Your task to perform on an android device: turn on wifi Image 0: 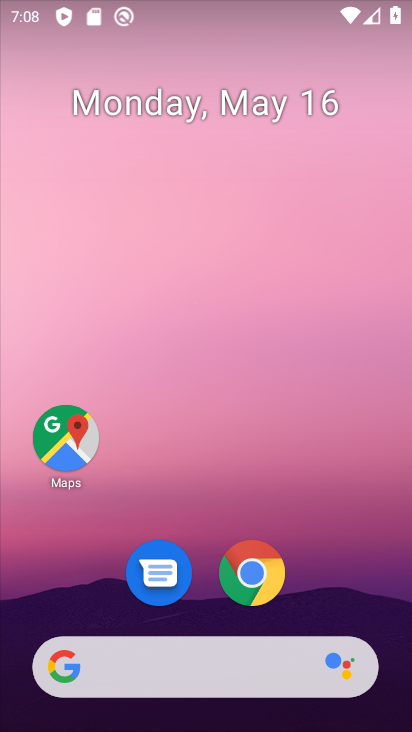
Step 0: drag from (335, 551) to (217, 8)
Your task to perform on an android device: turn on wifi Image 1: 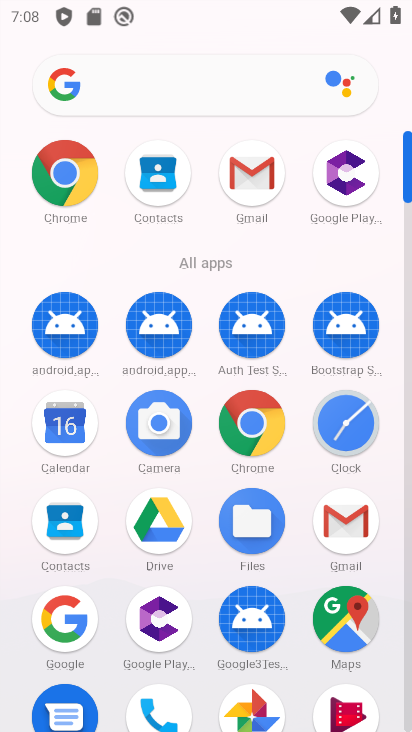
Step 1: drag from (406, 658) to (371, 279)
Your task to perform on an android device: turn on wifi Image 2: 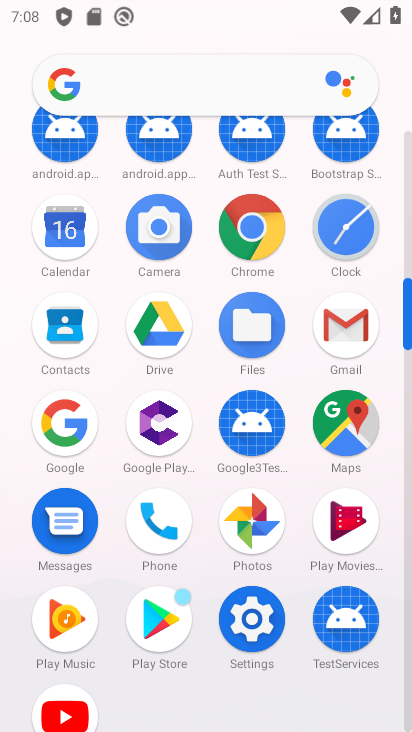
Step 2: click (245, 615)
Your task to perform on an android device: turn on wifi Image 3: 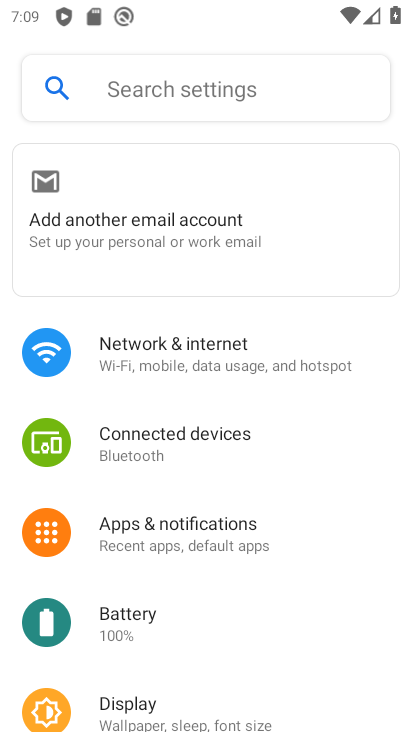
Step 3: click (170, 379)
Your task to perform on an android device: turn on wifi Image 4: 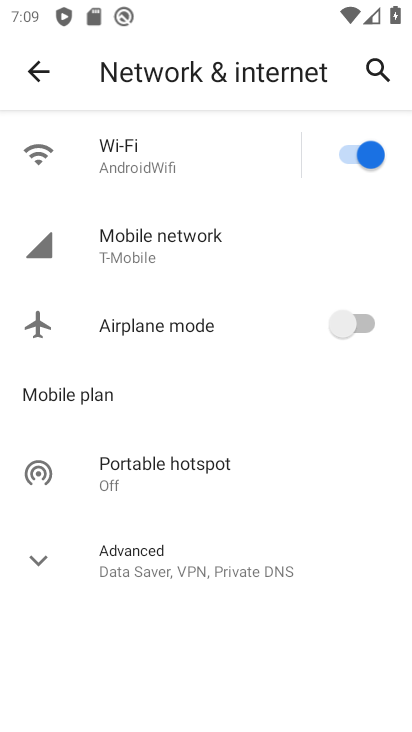
Step 4: task complete